Your task to perform on an android device: Add "dell xps" to the cart on newegg.com Image 0: 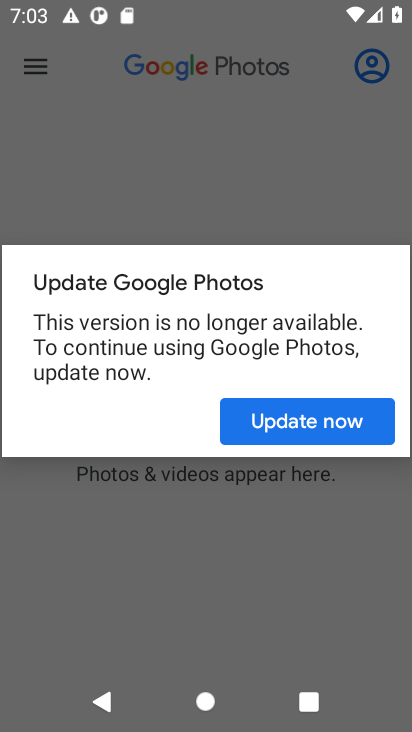
Step 0: press home button
Your task to perform on an android device: Add "dell xps" to the cart on newegg.com Image 1: 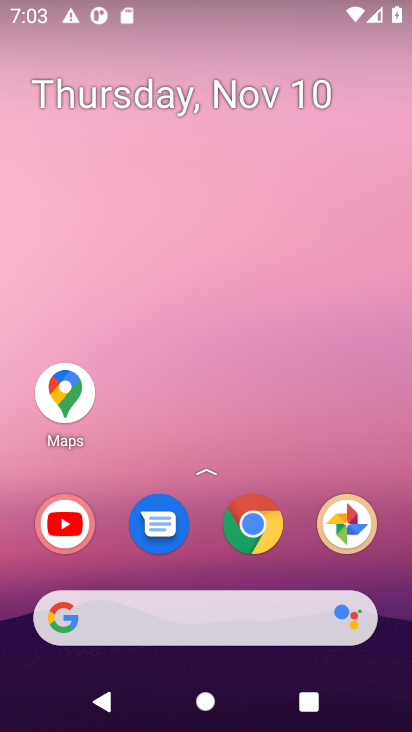
Step 1: click (228, 606)
Your task to perform on an android device: Add "dell xps" to the cart on newegg.com Image 2: 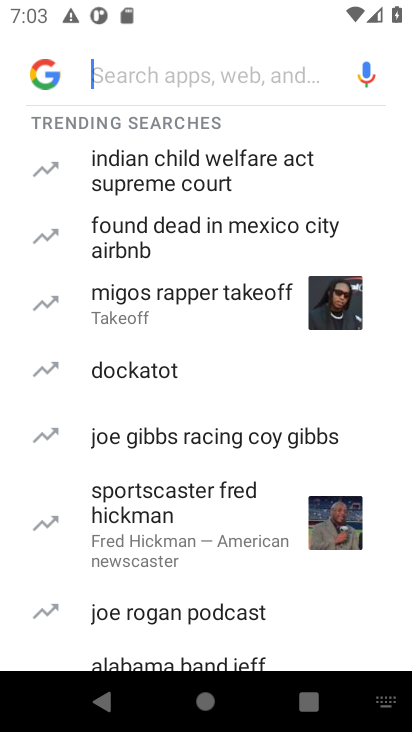
Step 2: type "newegg"
Your task to perform on an android device: Add "dell xps" to the cart on newegg.com Image 3: 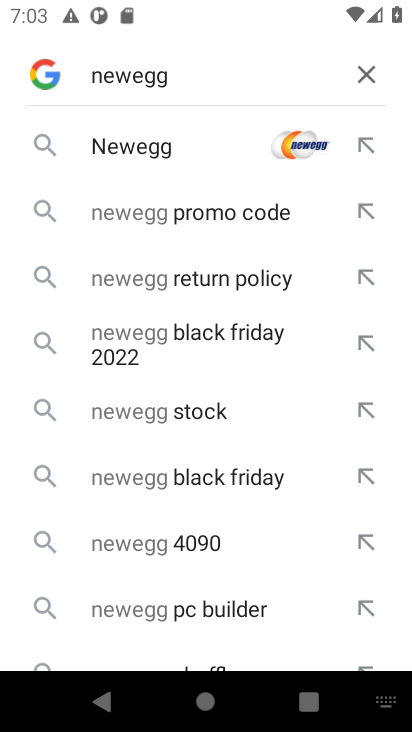
Step 3: click (311, 141)
Your task to perform on an android device: Add "dell xps" to the cart on newegg.com Image 4: 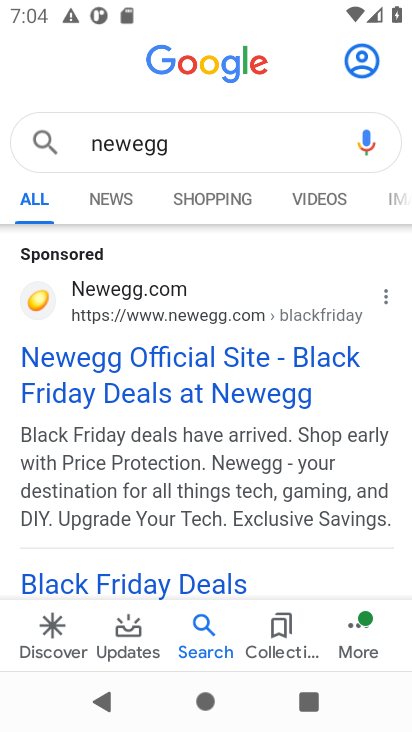
Step 4: drag from (210, 489) to (286, 89)
Your task to perform on an android device: Add "dell xps" to the cart on newegg.com Image 5: 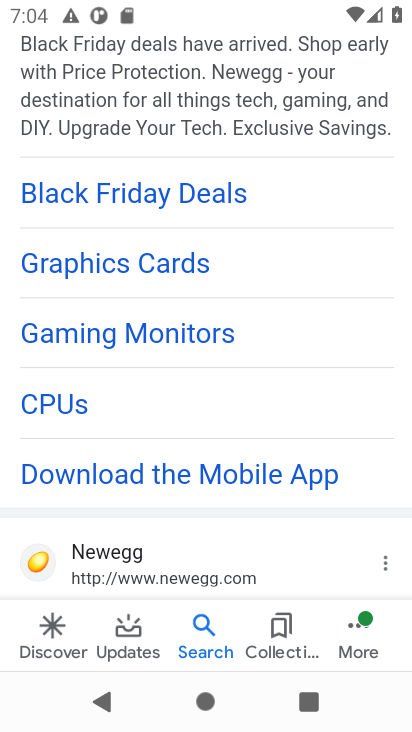
Step 5: drag from (170, 545) to (256, 116)
Your task to perform on an android device: Add "dell xps" to the cart on newegg.com Image 6: 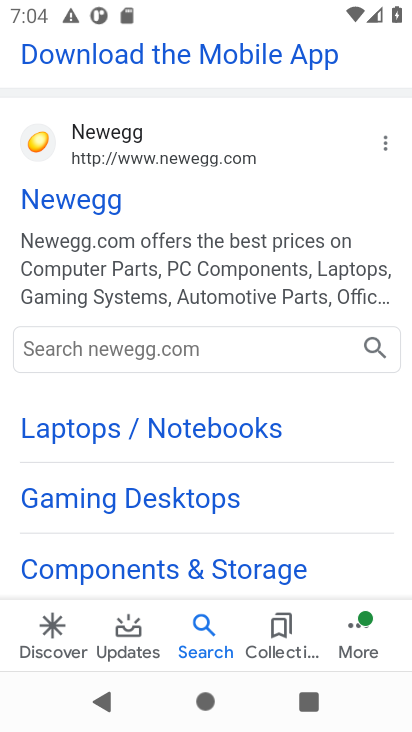
Step 6: click (84, 351)
Your task to perform on an android device: Add "dell xps" to the cart on newegg.com Image 7: 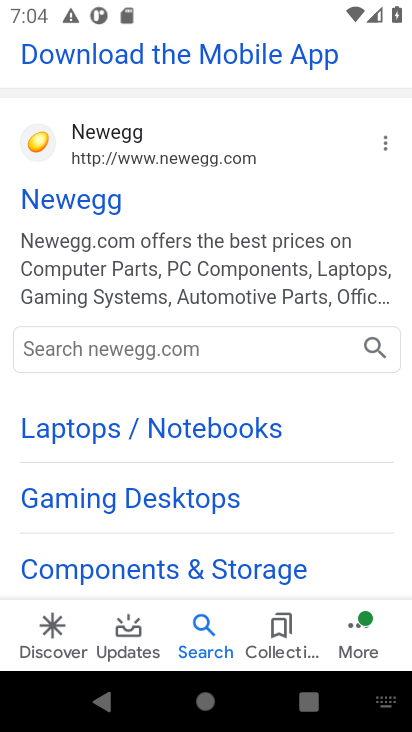
Step 7: type "dell xps"
Your task to perform on an android device: Add "dell xps" to the cart on newegg.com Image 8: 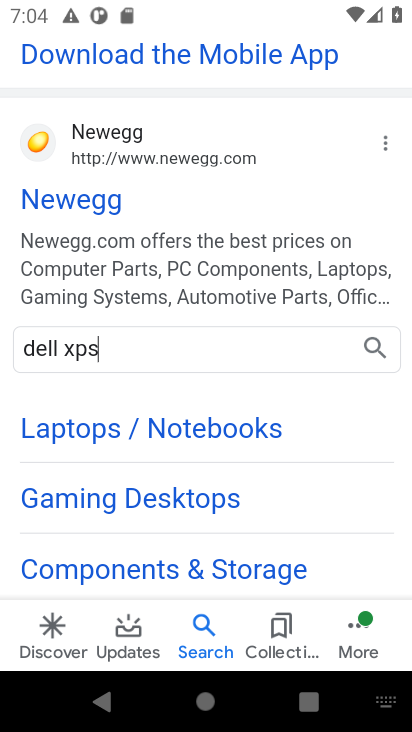
Step 8: click (372, 343)
Your task to perform on an android device: Add "dell xps" to the cart on newegg.com Image 9: 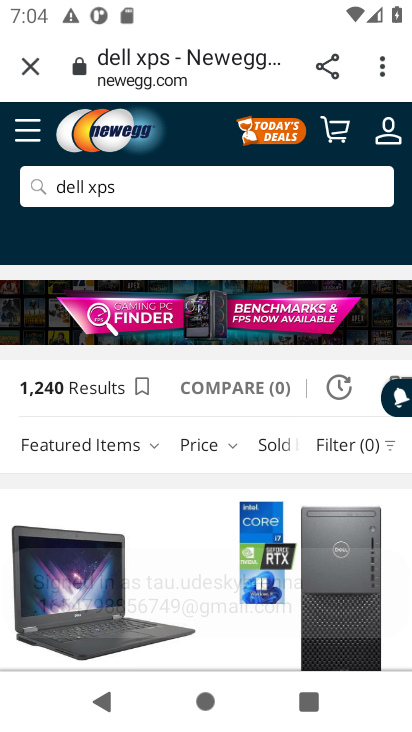
Step 9: drag from (152, 467) to (236, 185)
Your task to perform on an android device: Add "dell xps" to the cart on newegg.com Image 10: 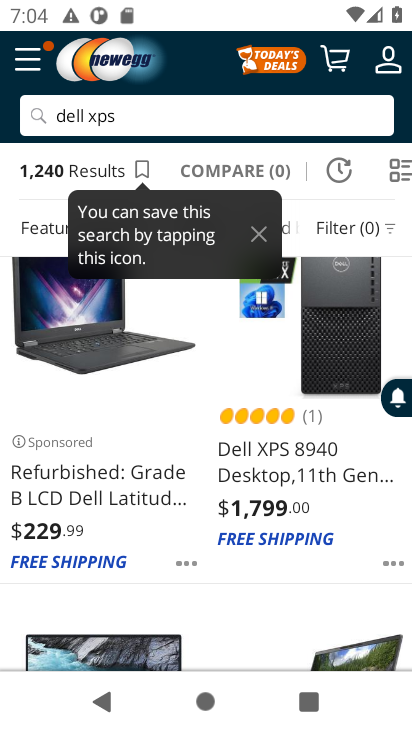
Step 10: click (248, 474)
Your task to perform on an android device: Add "dell xps" to the cart on newegg.com Image 11: 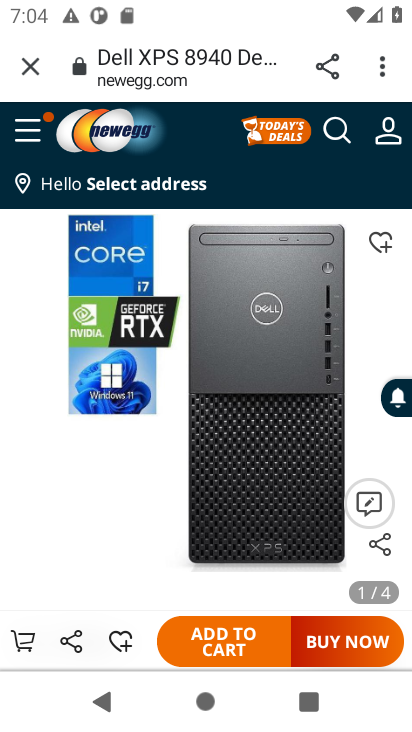
Step 11: click (238, 633)
Your task to perform on an android device: Add "dell xps" to the cart on newegg.com Image 12: 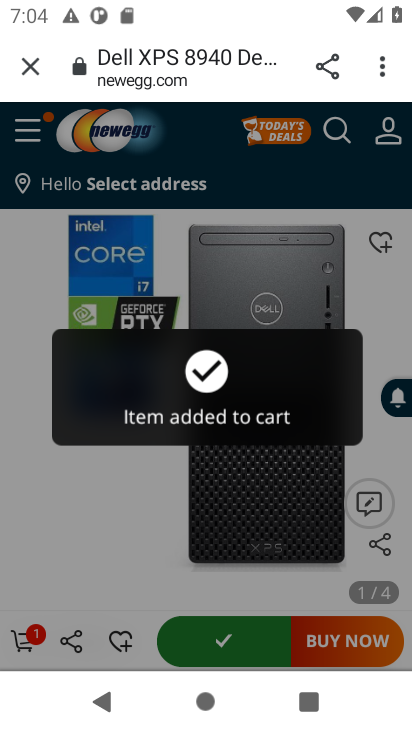
Step 12: task complete